Your task to perform on an android device: Open Youtube and go to "Your channel" Image 0: 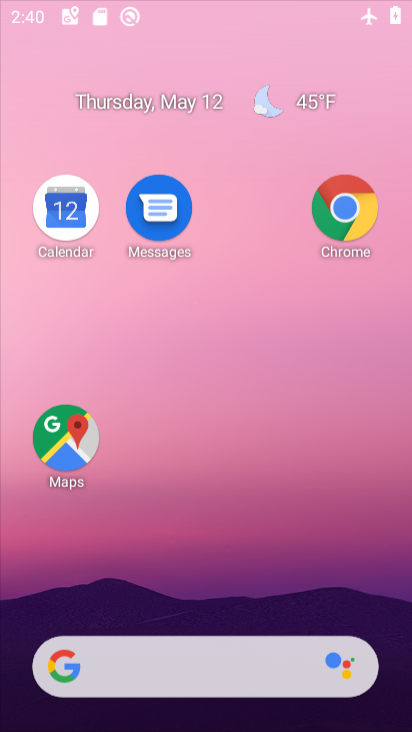
Step 0: click (223, 295)
Your task to perform on an android device: Open Youtube and go to "Your channel" Image 1: 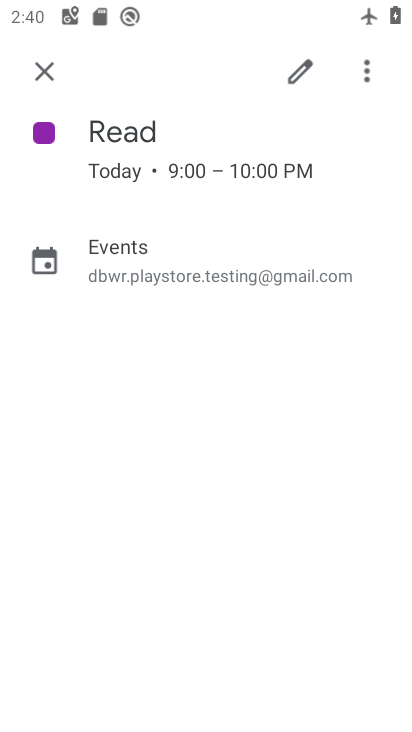
Step 1: press home button
Your task to perform on an android device: Open Youtube and go to "Your channel" Image 2: 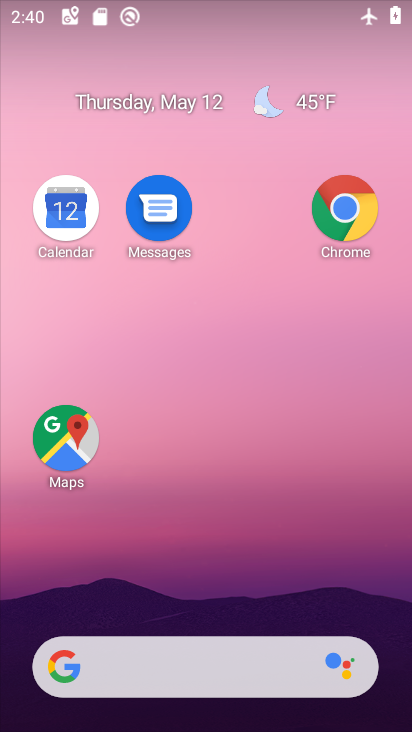
Step 2: drag from (161, 602) to (212, 313)
Your task to perform on an android device: Open Youtube and go to "Your channel" Image 3: 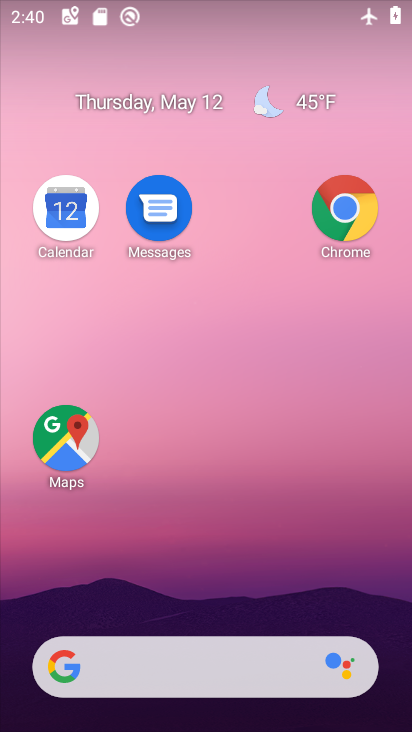
Step 3: drag from (212, 576) to (222, 132)
Your task to perform on an android device: Open Youtube and go to "Your channel" Image 4: 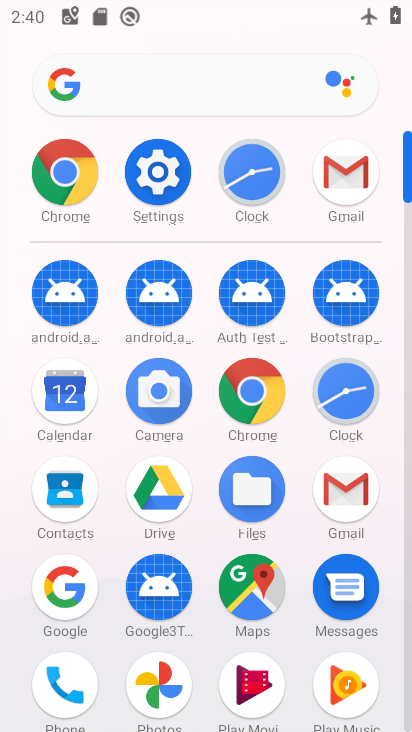
Step 4: drag from (202, 670) to (209, 263)
Your task to perform on an android device: Open Youtube and go to "Your channel" Image 5: 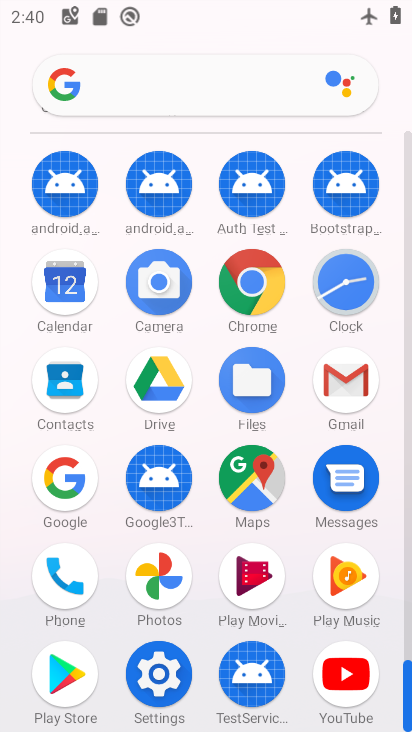
Step 5: click (334, 668)
Your task to perform on an android device: Open Youtube and go to "Your channel" Image 6: 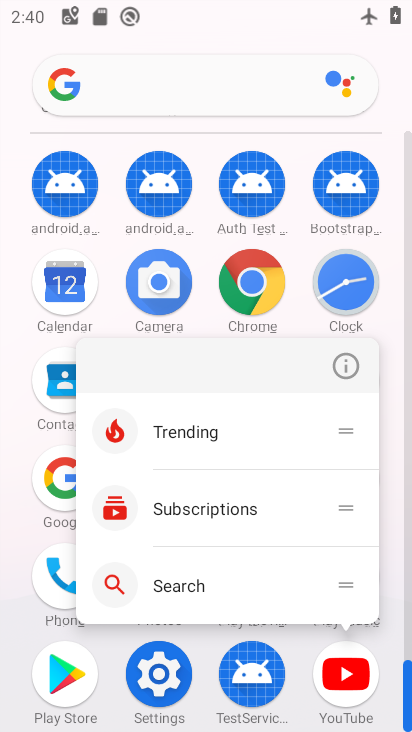
Step 6: click (337, 375)
Your task to perform on an android device: Open Youtube and go to "Your channel" Image 7: 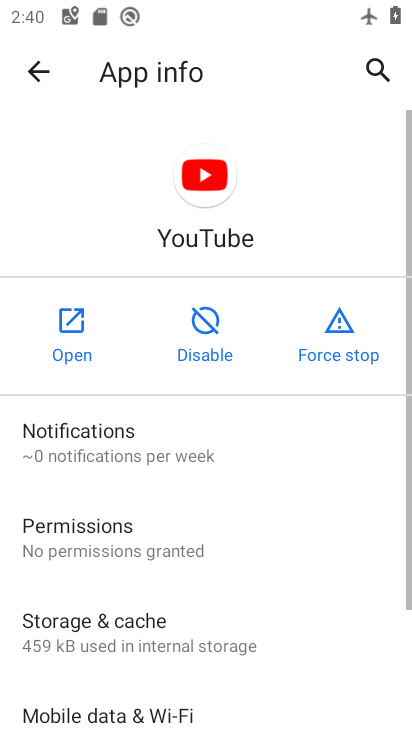
Step 7: click (47, 330)
Your task to perform on an android device: Open Youtube and go to "Your channel" Image 8: 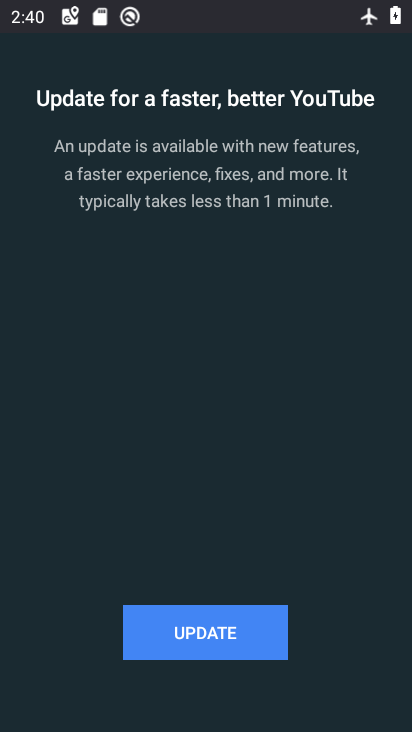
Step 8: click (193, 644)
Your task to perform on an android device: Open Youtube and go to "Your channel" Image 9: 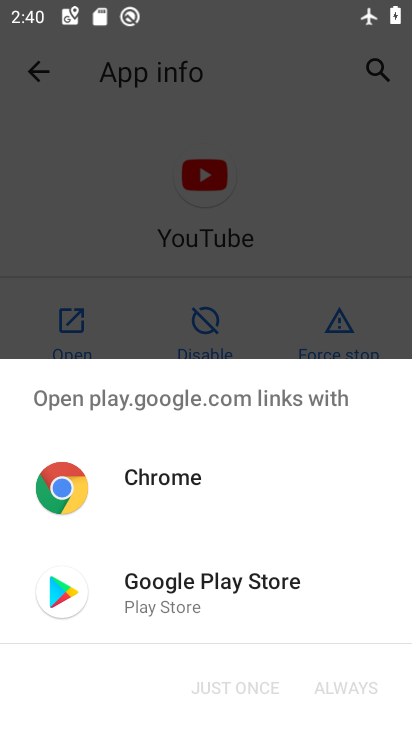
Step 9: click (120, 609)
Your task to perform on an android device: Open Youtube and go to "Your channel" Image 10: 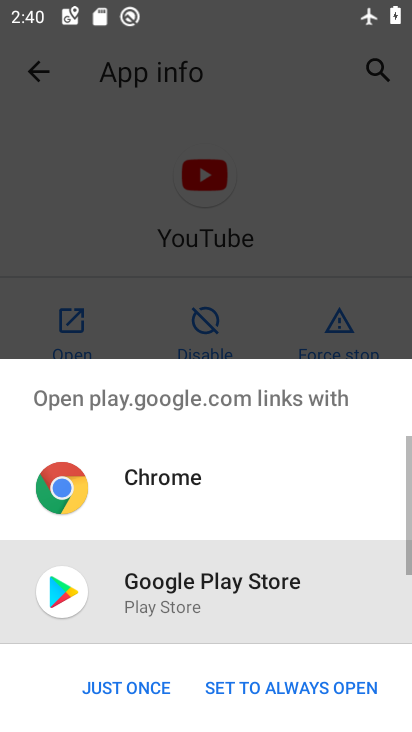
Step 10: click (143, 686)
Your task to perform on an android device: Open Youtube and go to "Your channel" Image 11: 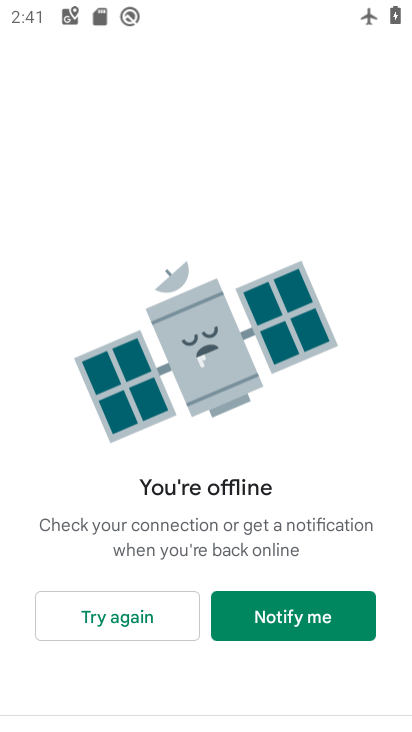
Step 11: click (294, 601)
Your task to perform on an android device: Open Youtube and go to "Your channel" Image 12: 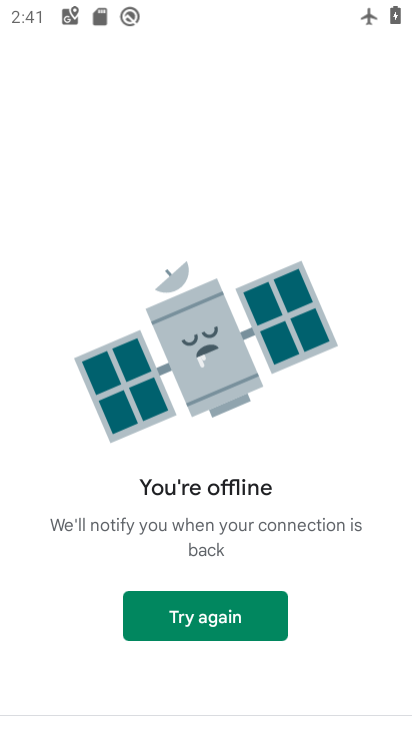
Step 12: task complete